Your task to perform on an android device: Open Google Image 0: 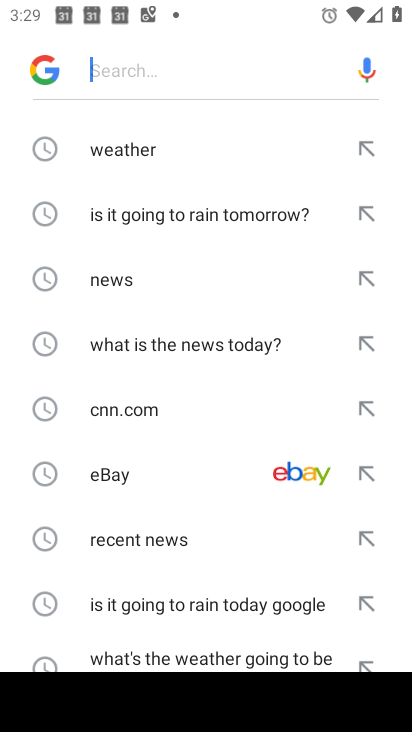
Step 0: task complete